Your task to perform on an android device: Open calendar and show me the fourth week of next month Image 0: 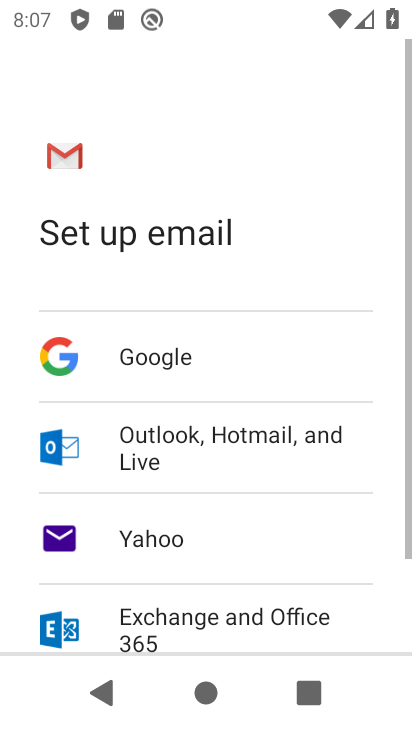
Step 0: press home button
Your task to perform on an android device: Open calendar and show me the fourth week of next month Image 1: 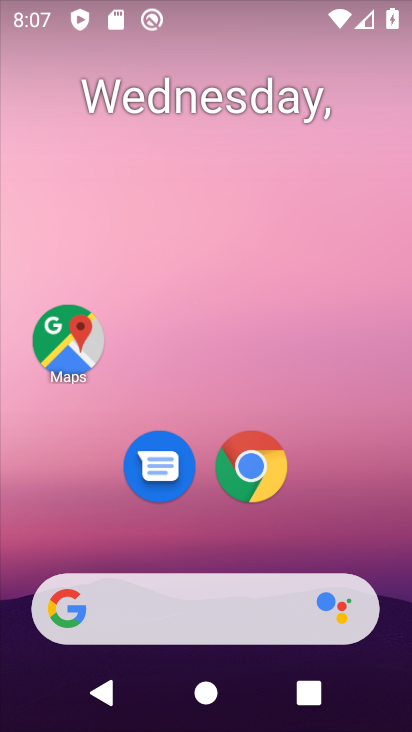
Step 1: drag from (218, 557) to (259, 6)
Your task to perform on an android device: Open calendar and show me the fourth week of next month Image 2: 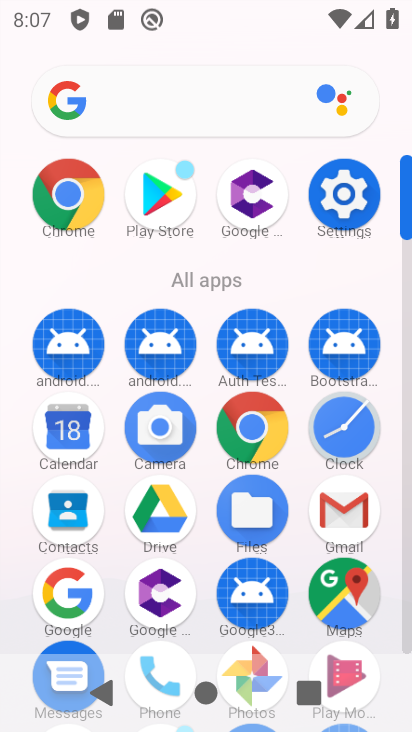
Step 2: click (76, 431)
Your task to perform on an android device: Open calendar and show me the fourth week of next month Image 3: 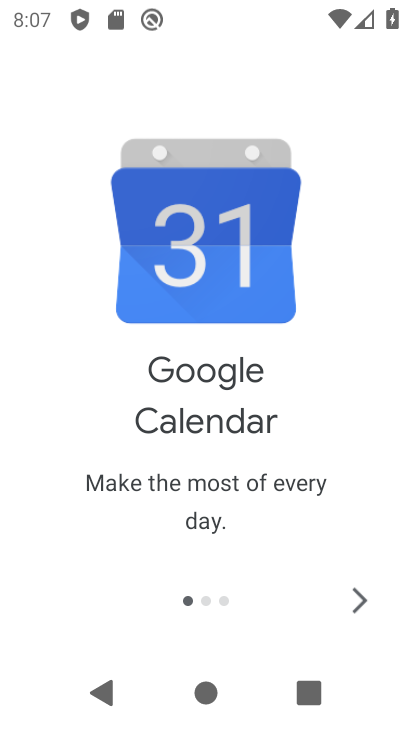
Step 3: click (363, 598)
Your task to perform on an android device: Open calendar and show me the fourth week of next month Image 4: 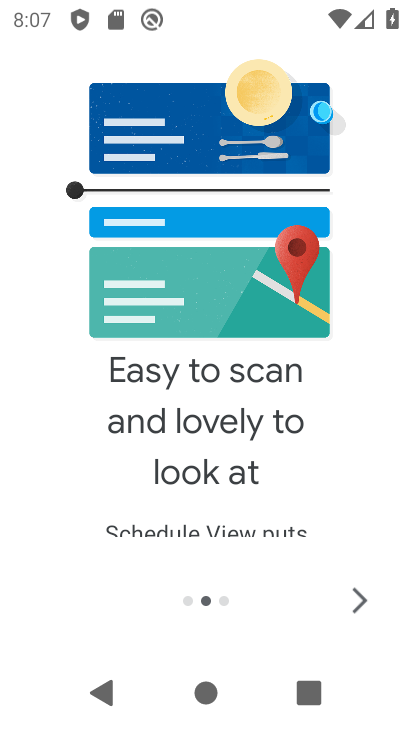
Step 4: click (346, 595)
Your task to perform on an android device: Open calendar and show me the fourth week of next month Image 5: 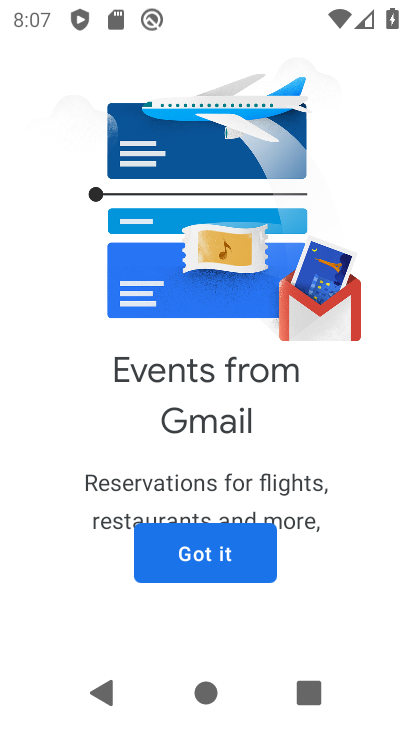
Step 5: click (205, 548)
Your task to perform on an android device: Open calendar and show me the fourth week of next month Image 6: 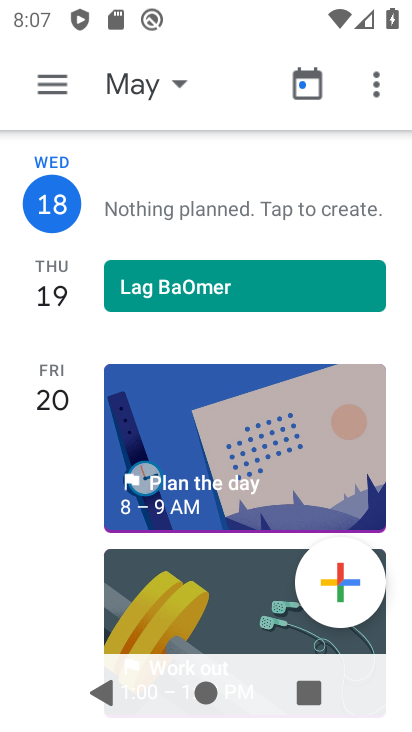
Step 6: click (49, 86)
Your task to perform on an android device: Open calendar and show me the fourth week of next month Image 7: 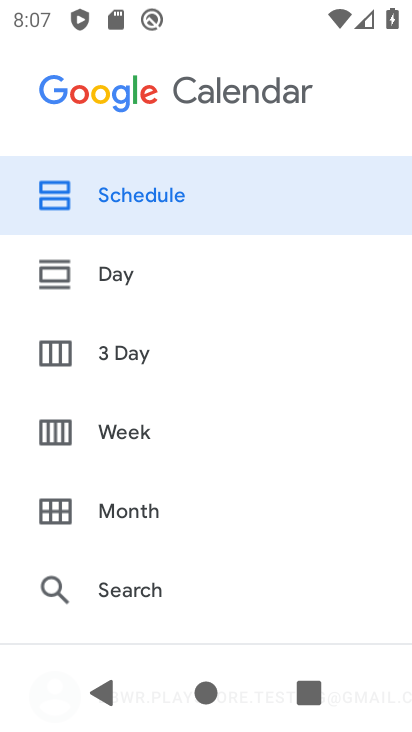
Step 7: click (125, 430)
Your task to perform on an android device: Open calendar and show me the fourth week of next month Image 8: 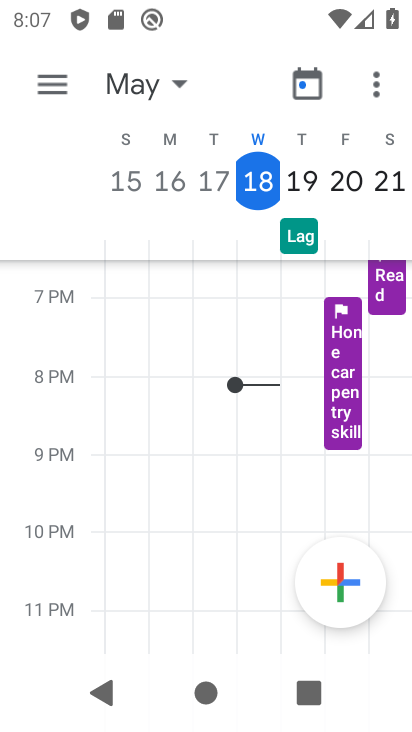
Step 8: task complete